Your task to perform on an android device: Open display settings Image 0: 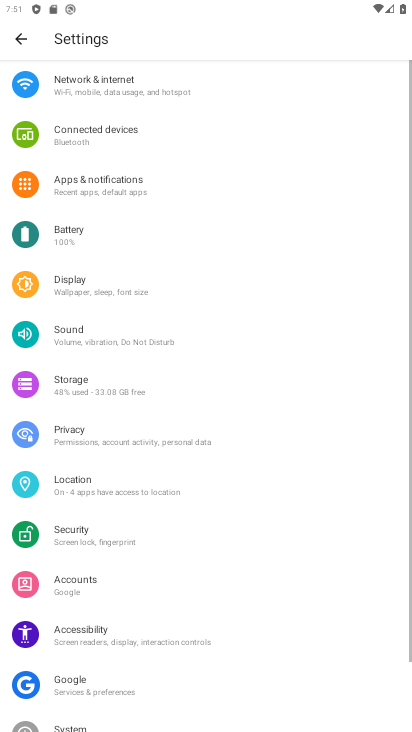
Step 0: press home button
Your task to perform on an android device: Open display settings Image 1: 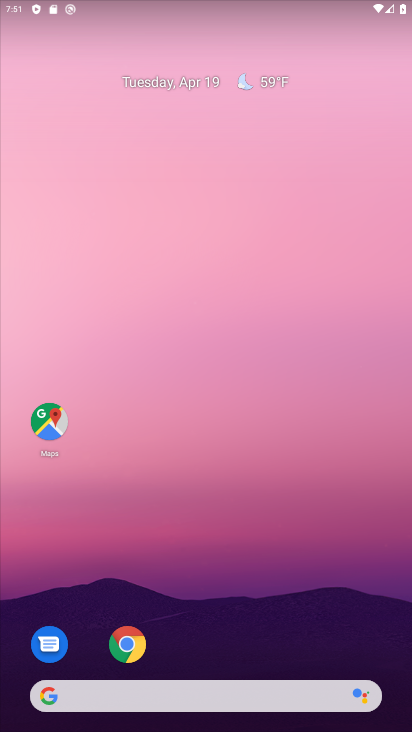
Step 1: drag from (231, 611) to (293, 140)
Your task to perform on an android device: Open display settings Image 2: 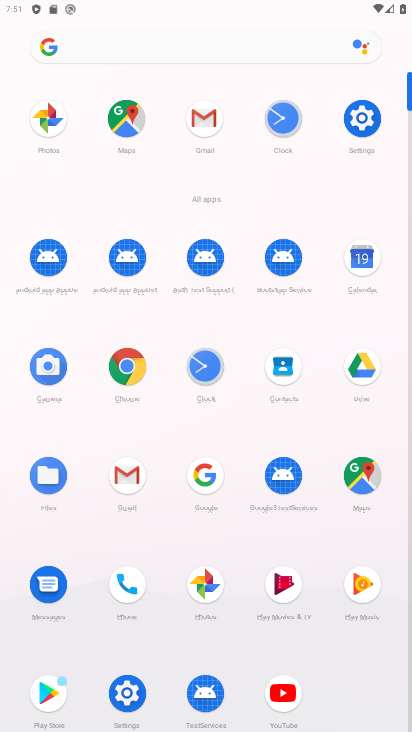
Step 2: click (124, 688)
Your task to perform on an android device: Open display settings Image 3: 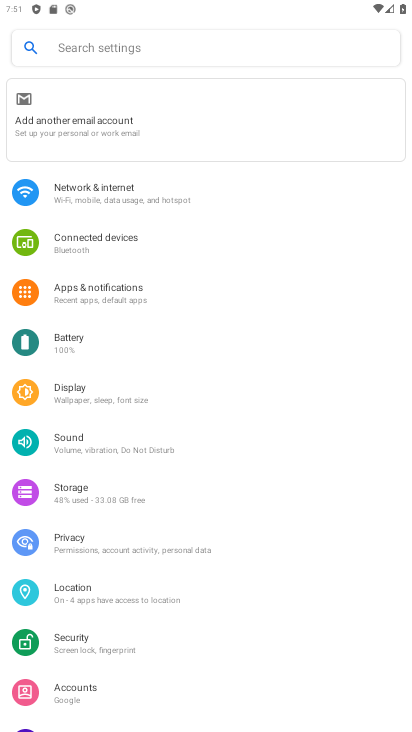
Step 3: click (90, 397)
Your task to perform on an android device: Open display settings Image 4: 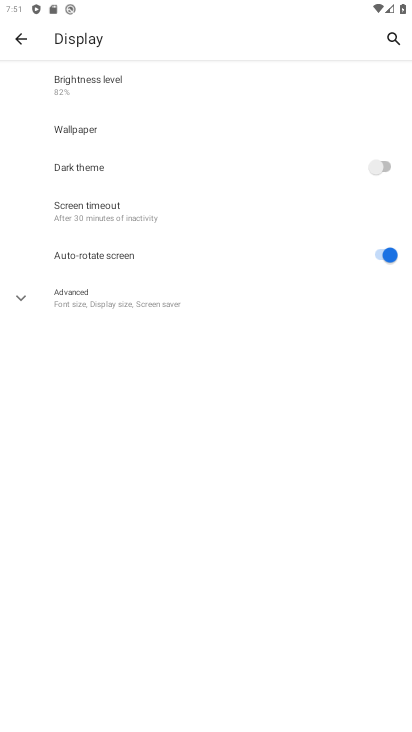
Step 4: task complete